Your task to perform on an android device: Turn on the flashlight Image 0: 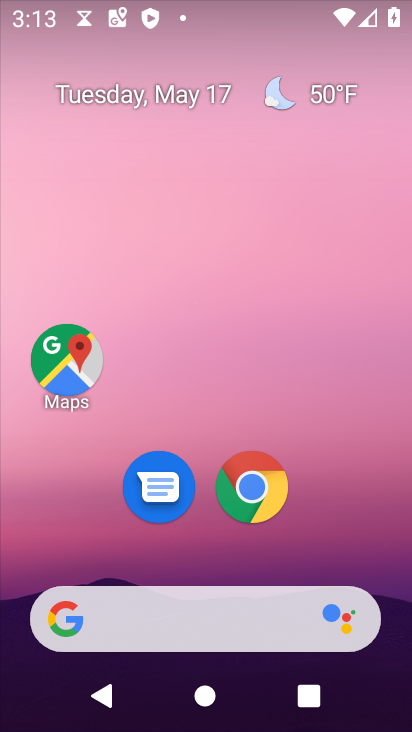
Step 0: drag from (252, 9) to (243, 448)
Your task to perform on an android device: Turn on the flashlight Image 1: 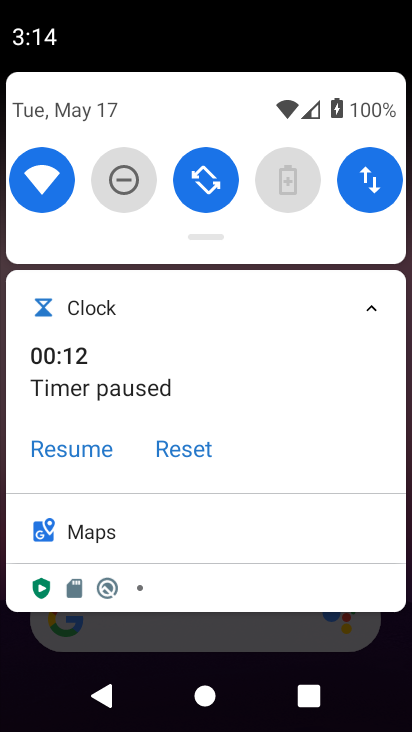
Step 1: drag from (205, 235) to (211, 549)
Your task to perform on an android device: Turn on the flashlight Image 2: 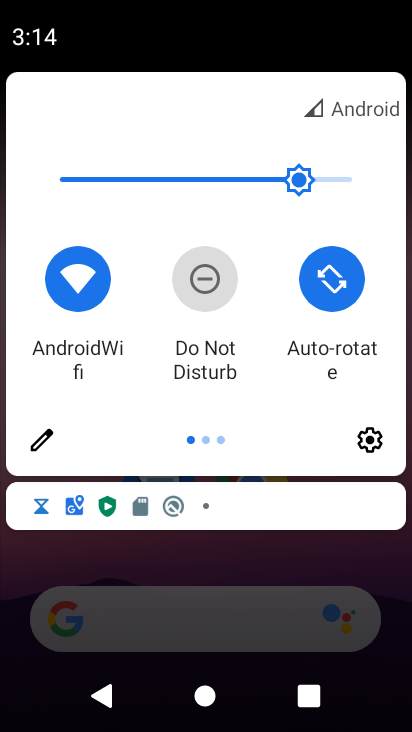
Step 2: click (38, 443)
Your task to perform on an android device: Turn on the flashlight Image 3: 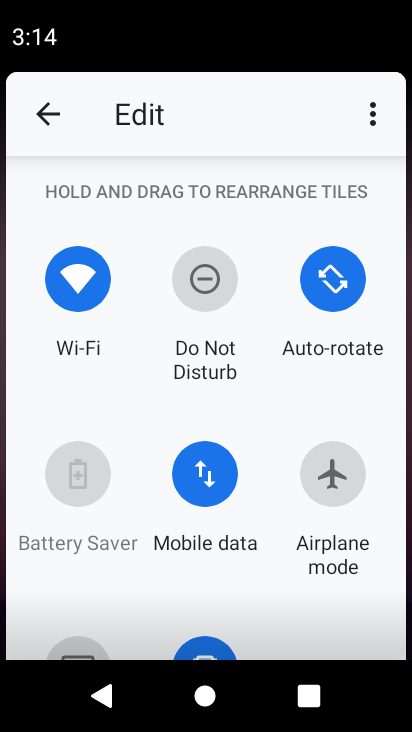
Step 3: task complete